Your task to perform on an android device: toggle airplane mode Image 0: 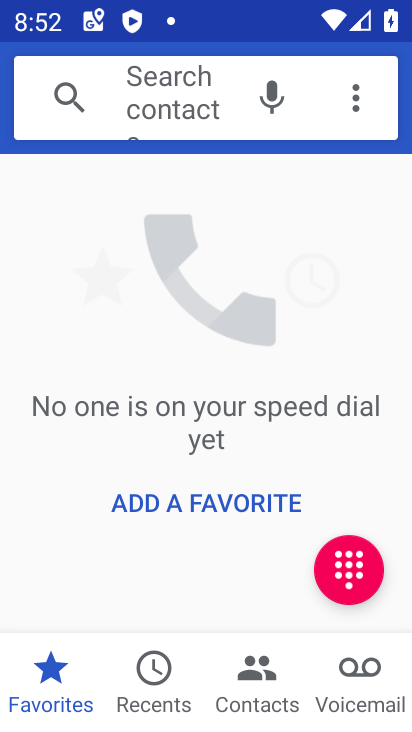
Step 0: press home button
Your task to perform on an android device: toggle airplane mode Image 1: 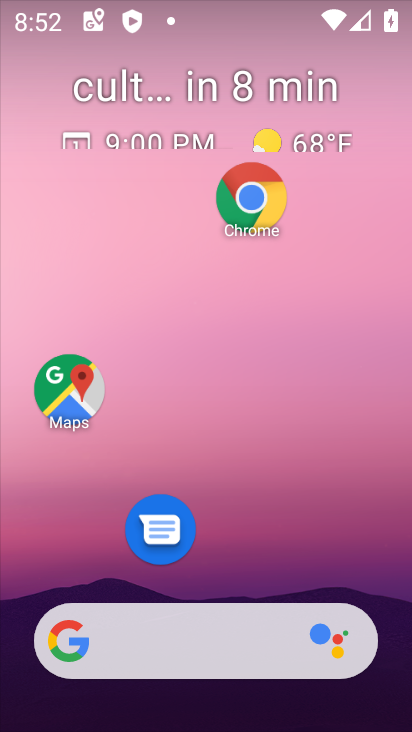
Step 1: drag from (233, 563) to (240, 152)
Your task to perform on an android device: toggle airplane mode Image 2: 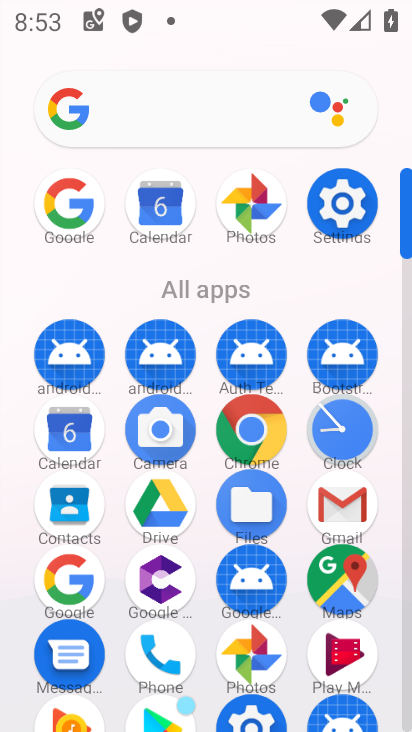
Step 2: click (308, 198)
Your task to perform on an android device: toggle airplane mode Image 3: 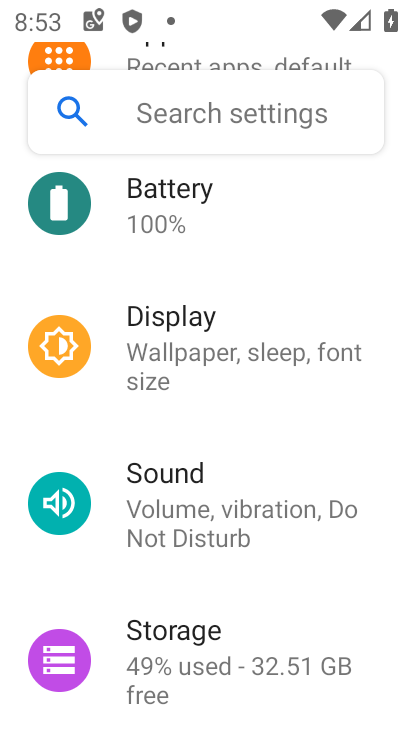
Step 3: drag from (272, 212) to (282, 548)
Your task to perform on an android device: toggle airplane mode Image 4: 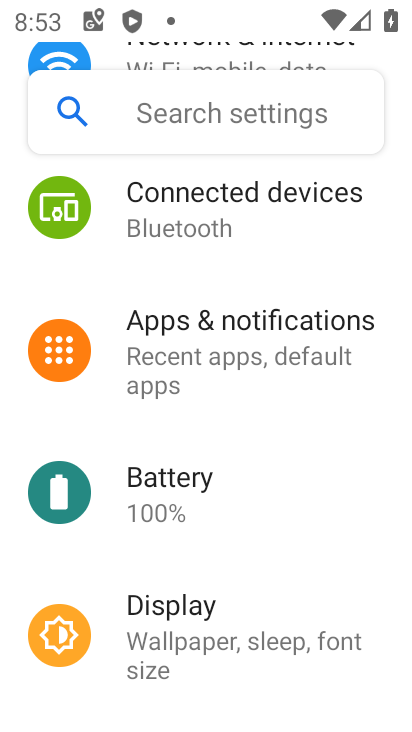
Step 4: drag from (240, 275) to (240, 537)
Your task to perform on an android device: toggle airplane mode Image 5: 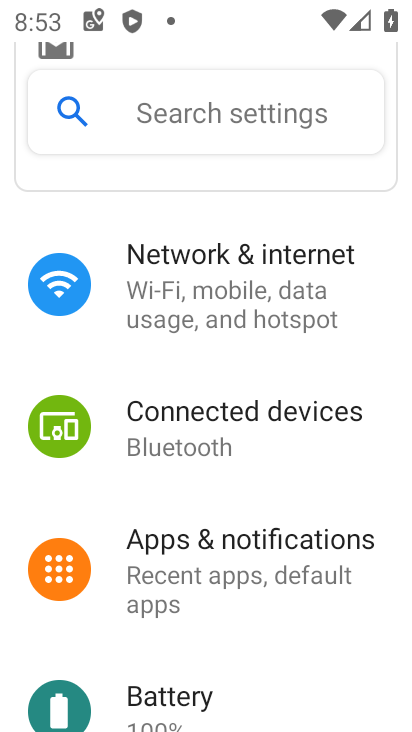
Step 5: click (216, 285)
Your task to perform on an android device: toggle airplane mode Image 6: 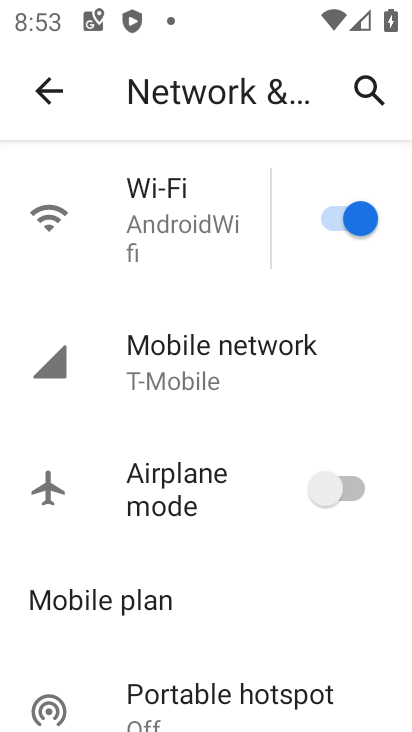
Step 6: click (349, 481)
Your task to perform on an android device: toggle airplane mode Image 7: 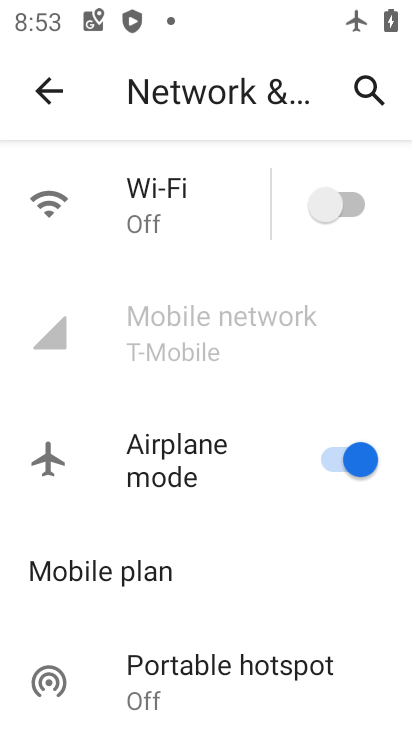
Step 7: task complete